Your task to perform on an android device: snooze an email in the gmail app Image 0: 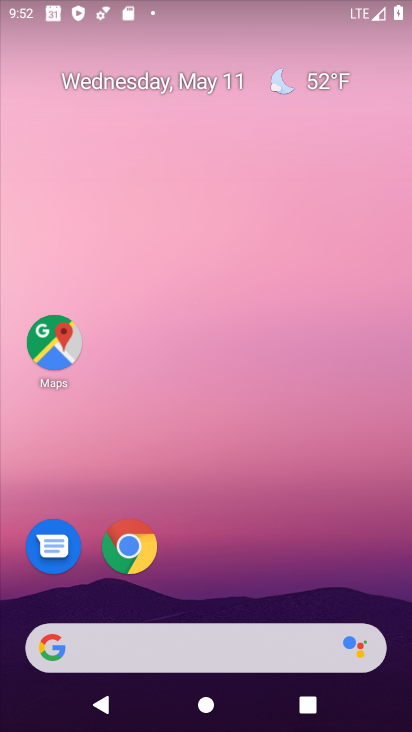
Step 0: drag from (230, 637) to (178, 308)
Your task to perform on an android device: snooze an email in the gmail app Image 1: 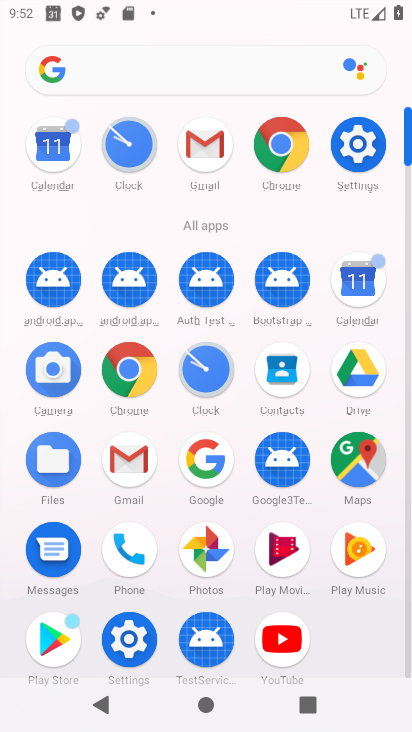
Step 1: click (142, 455)
Your task to perform on an android device: snooze an email in the gmail app Image 2: 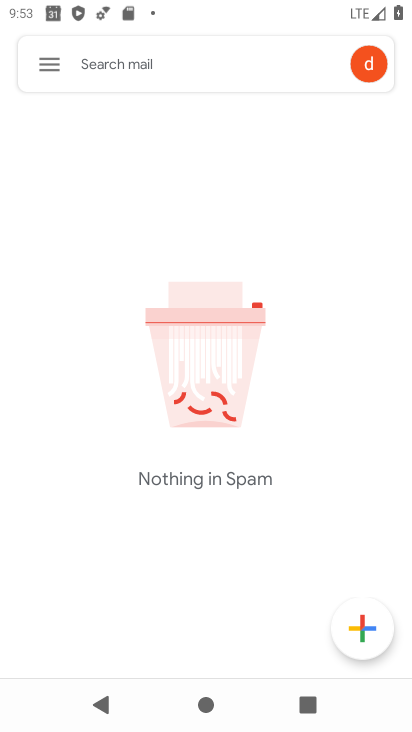
Step 2: click (63, 64)
Your task to perform on an android device: snooze an email in the gmail app Image 3: 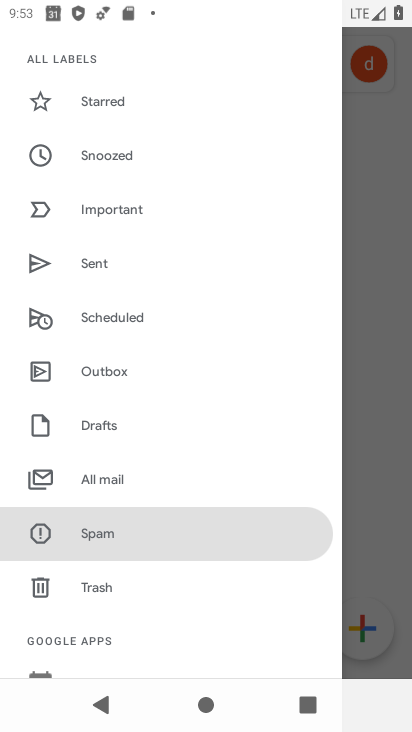
Step 3: click (103, 482)
Your task to perform on an android device: snooze an email in the gmail app Image 4: 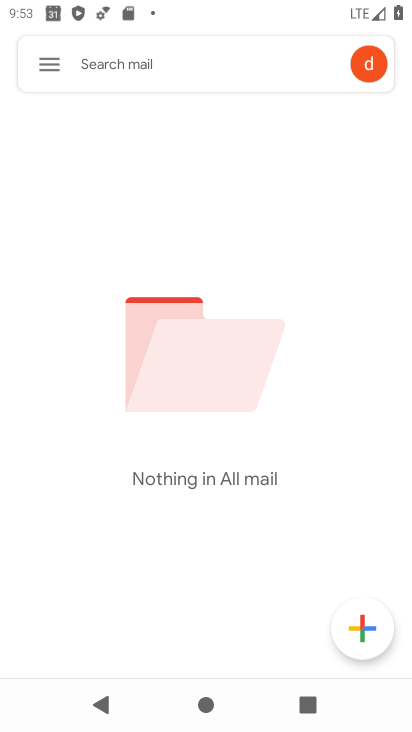
Step 4: task complete